Your task to perform on an android device: install app "PUBG MOBILE" Image 0: 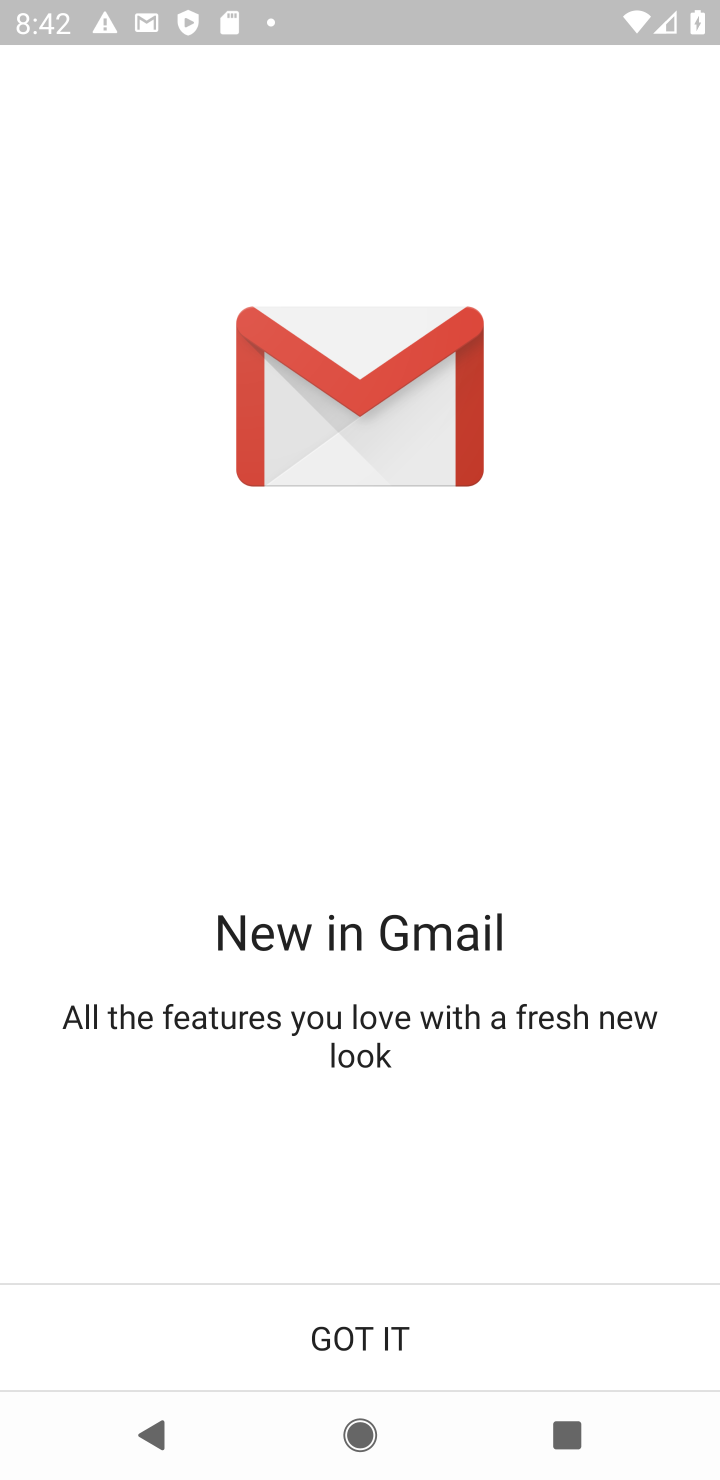
Step 0: press home button
Your task to perform on an android device: install app "PUBG MOBILE" Image 1: 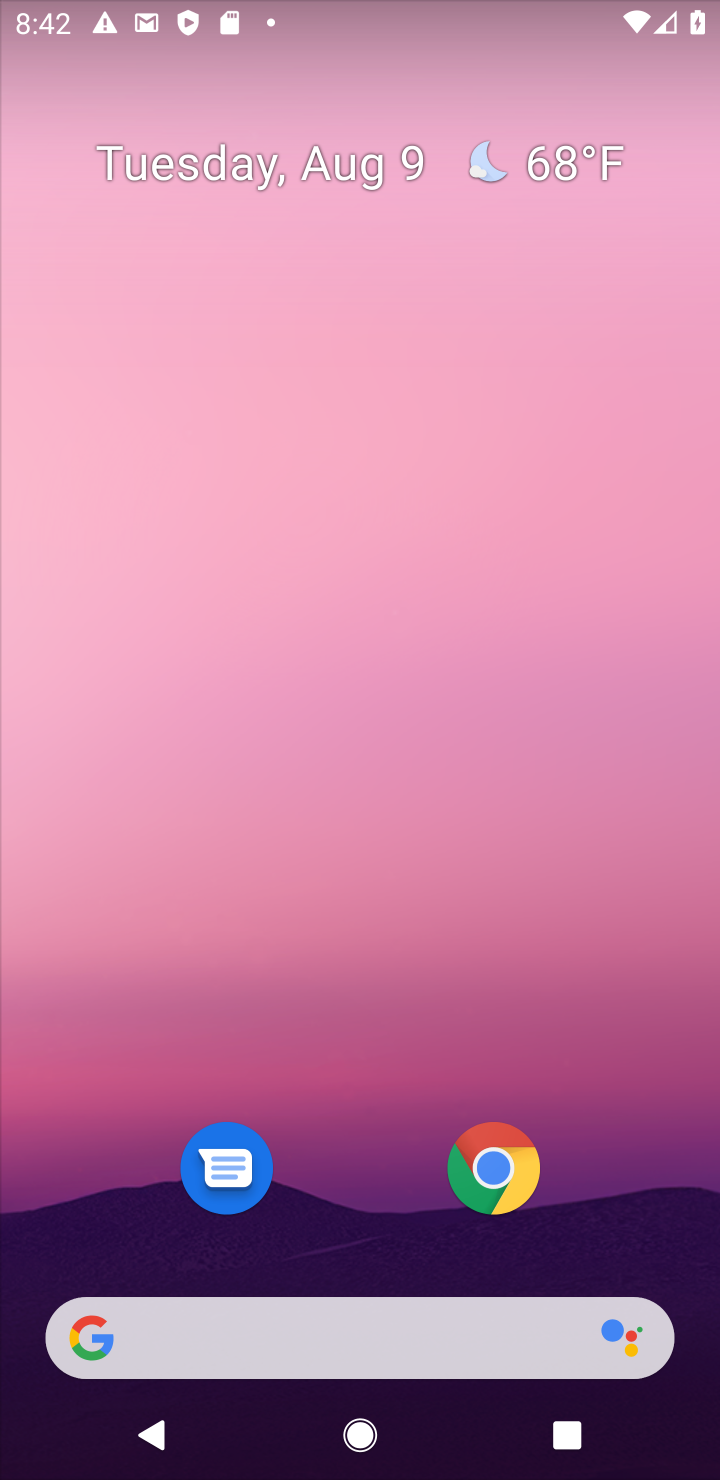
Step 1: drag from (446, 1341) to (473, 244)
Your task to perform on an android device: install app "PUBG MOBILE" Image 2: 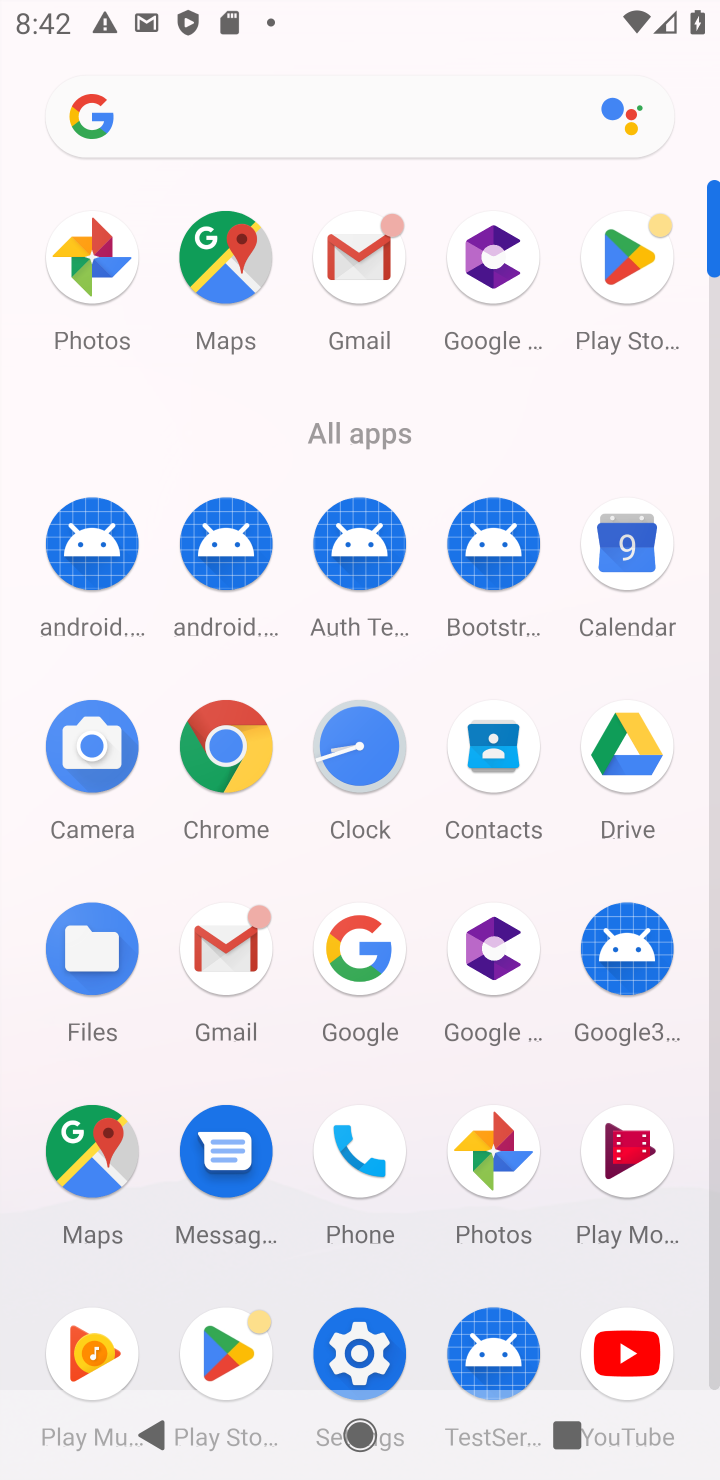
Step 2: click (643, 239)
Your task to perform on an android device: install app "PUBG MOBILE" Image 3: 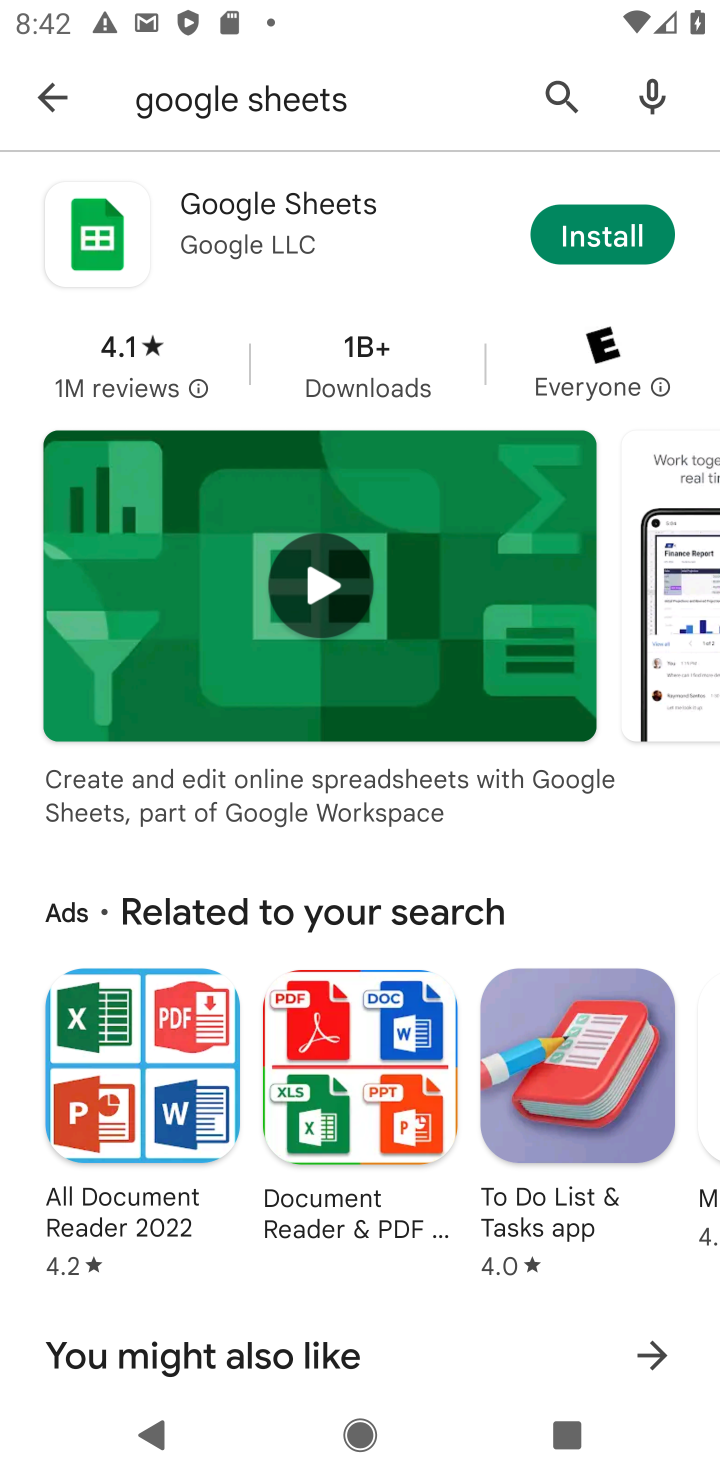
Step 3: click (558, 94)
Your task to perform on an android device: install app "PUBG MOBILE" Image 4: 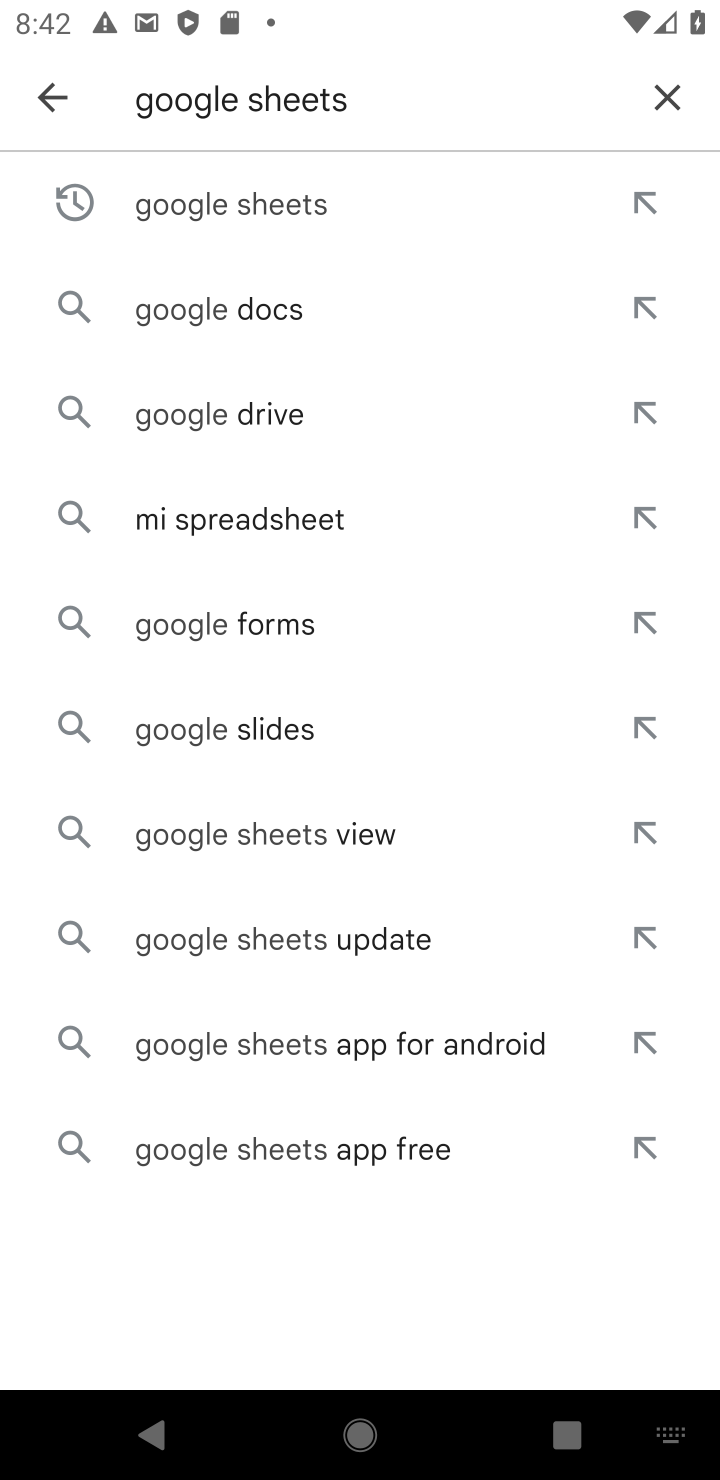
Step 4: click (659, 94)
Your task to perform on an android device: install app "PUBG MOBILE" Image 5: 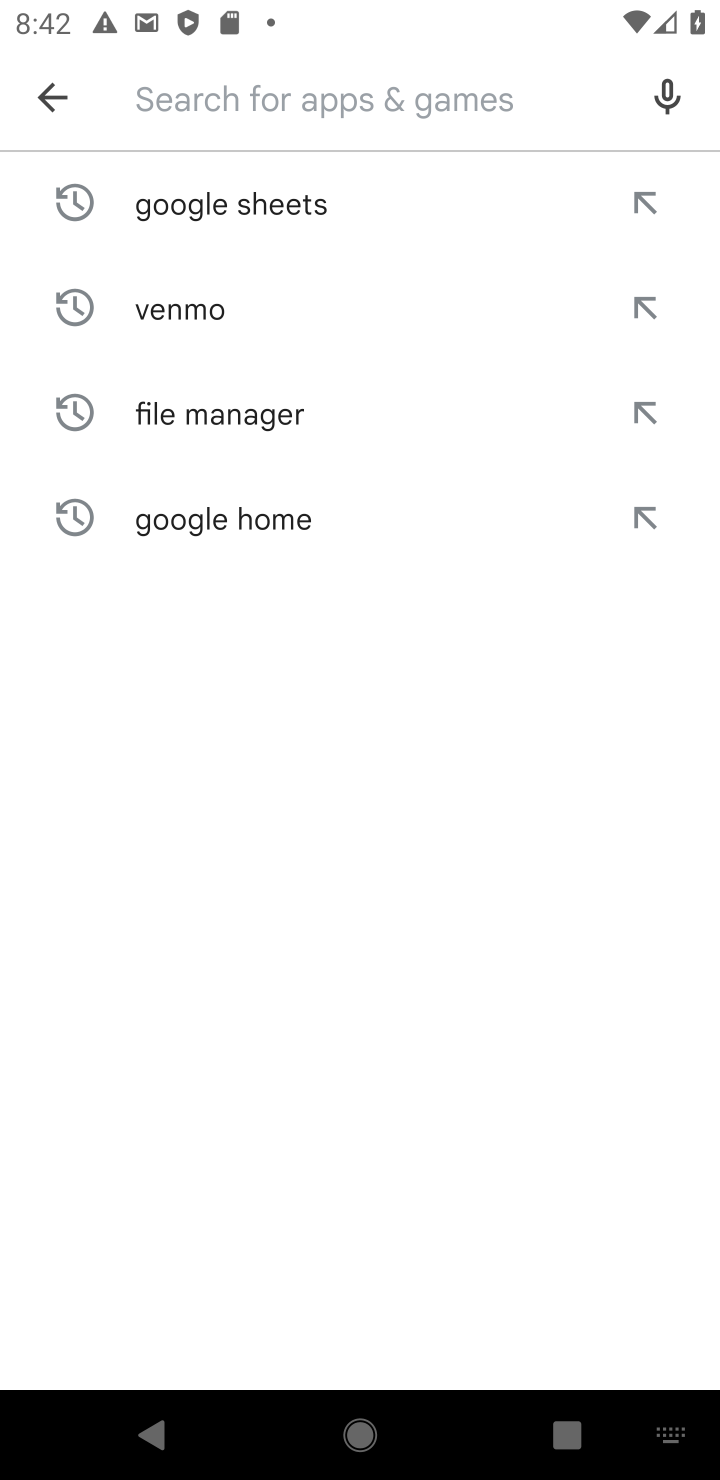
Step 5: type "pubg mobile"
Your task to perform on an android device: install app "PUBG MOBILE" Image 6: 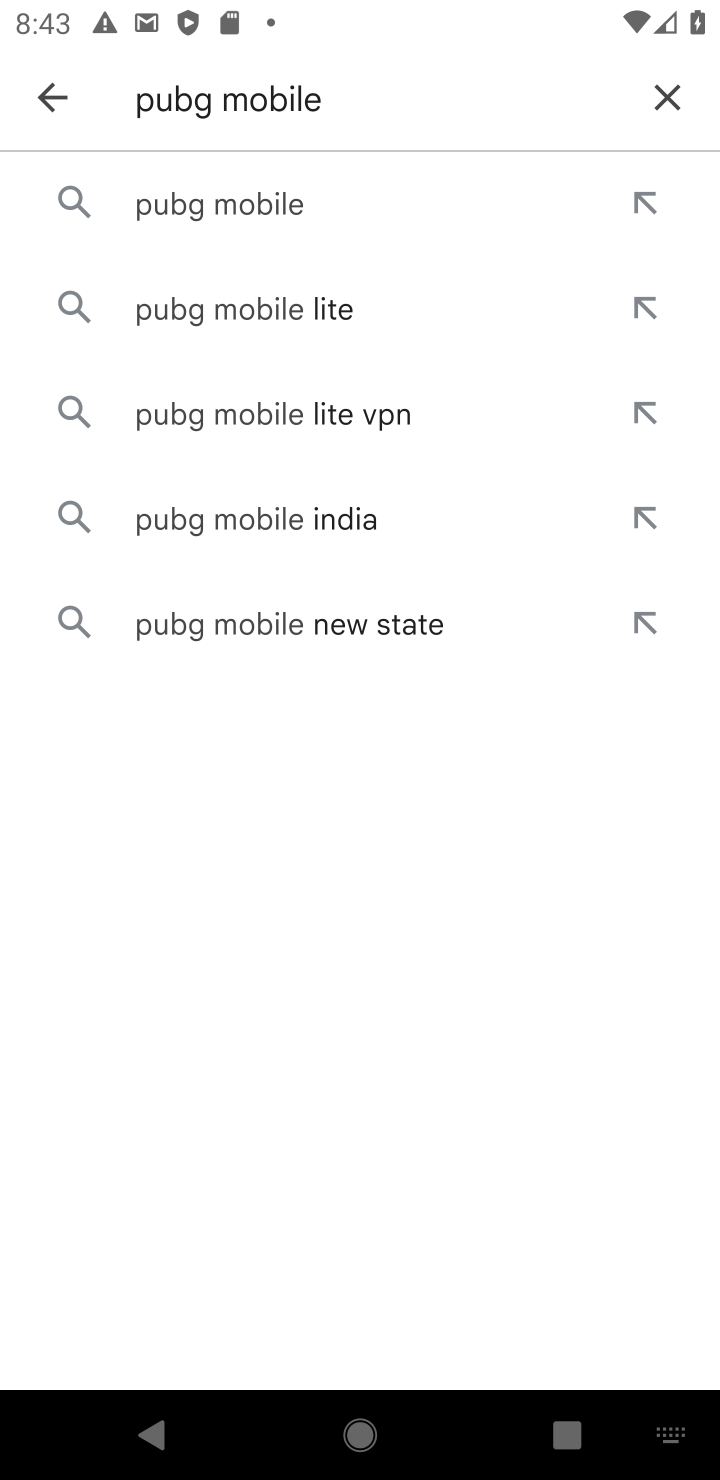
Step 6: click (315, 219)
Your task to perform on an android device: install app "PUBG MOBILE" Image 7: 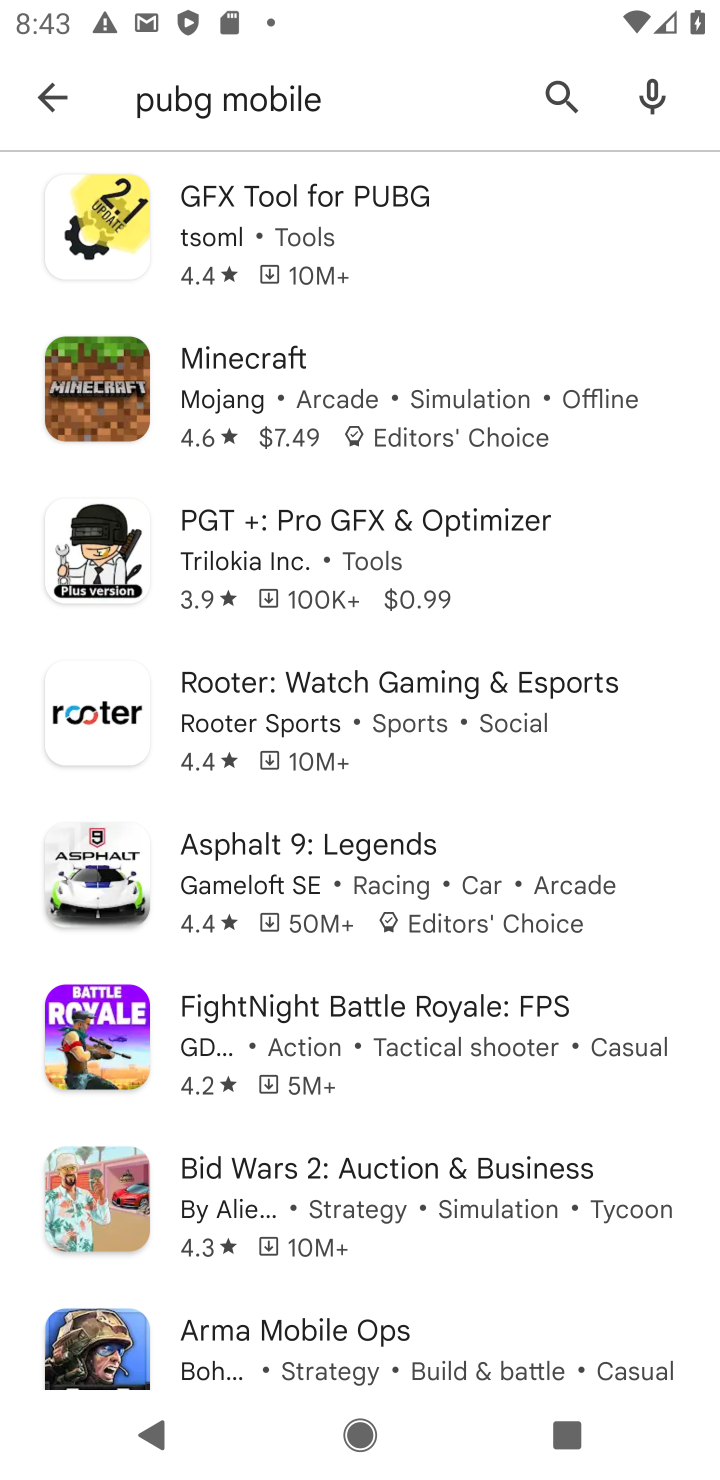
Step 7: task complete